Your task to perform on an android device: Open ESPN.com Image 0: 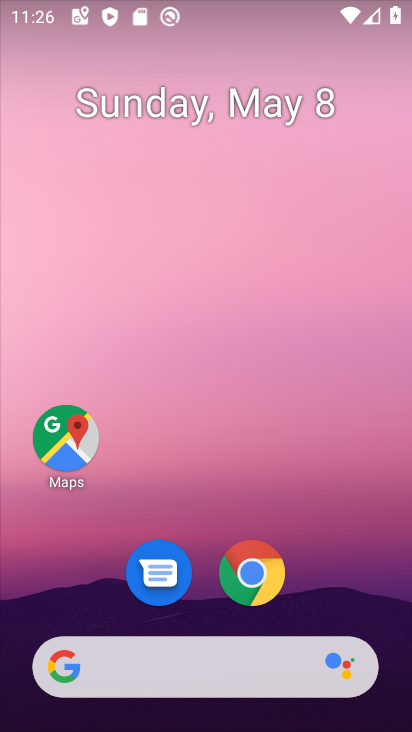
Step 0: drag from (314, 564) to (282, 26)
Your task to perform on an android device: Open ESPN.com Image 1: 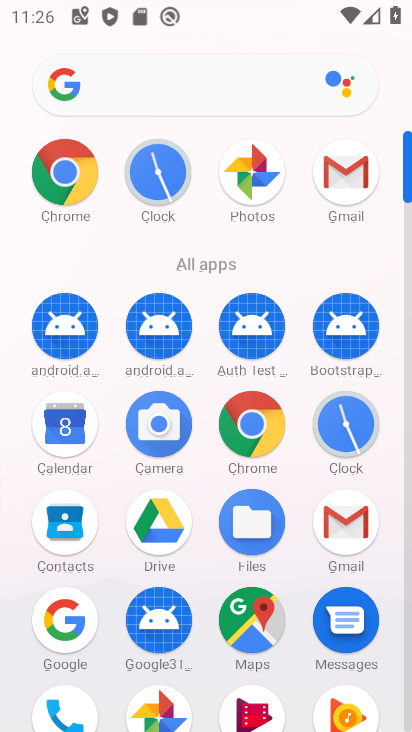
Step 1: click (66, 173)
Your task to perform on an android device: Open ESPN.com Image 2: 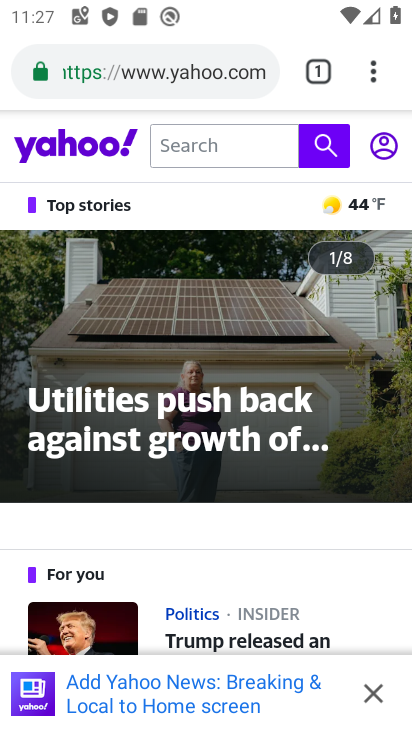
Step 2: click (170, 78)
Your task to perform on an android device: Open ESPN.com Image 3: 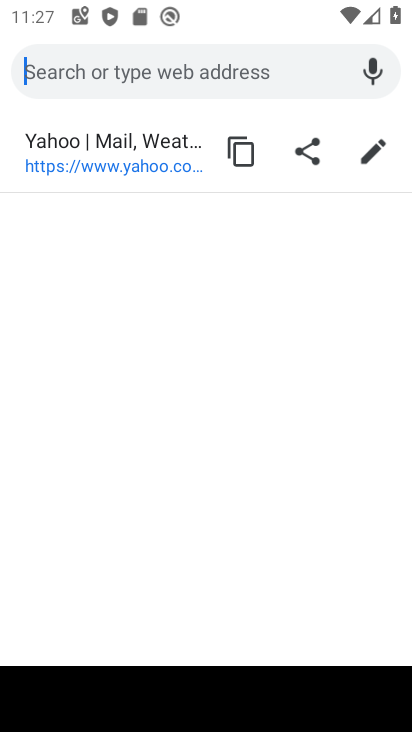
Step 3: type "ESPN.com"
Your task to perform on an android device: Open ESPN.com Image 4: 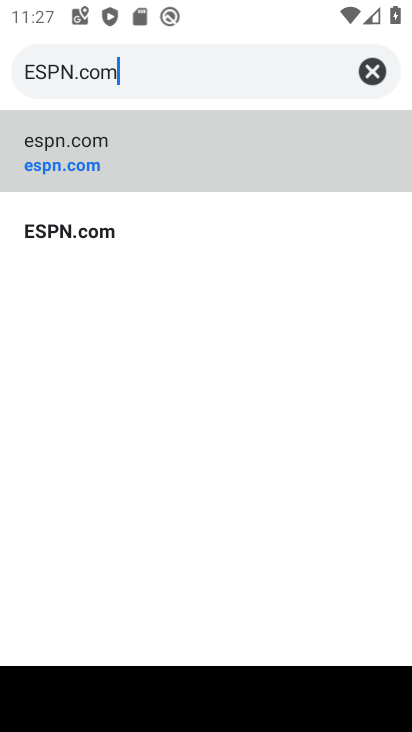
Step 4: type ""
Your task to perform on an android device: Open ESPN.com Image 5: 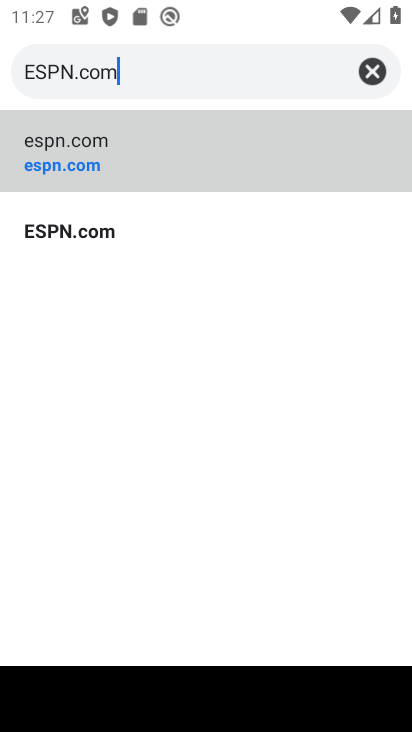
Step 5: click (161, 124)
Your task to perform on an android device: Open ESPN.com Image 6: 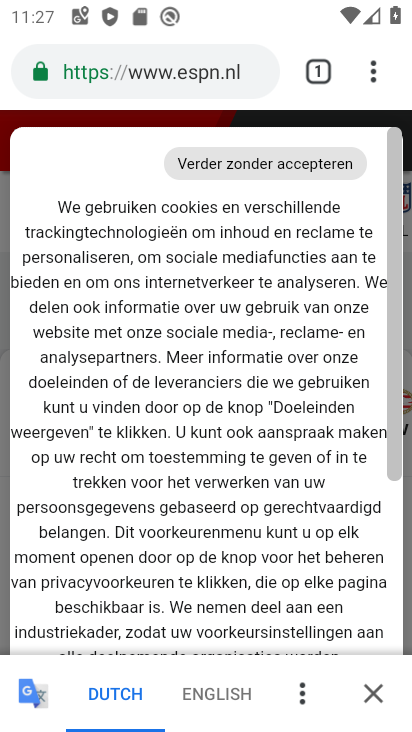
Step 6: drag from (216, 490) to (241, 156)
Your task to perform on an android device: Open ESPN.com Image 7: 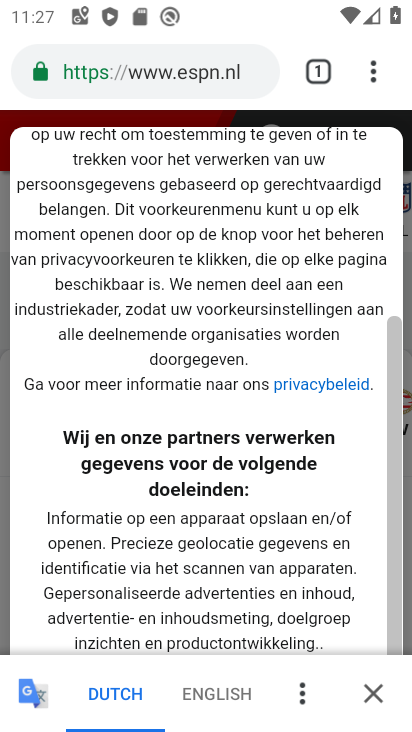
Step 7: drag from (241, 574) to (242, 99)
Your task to perform on an android device: Open ESPN.com Image 8: 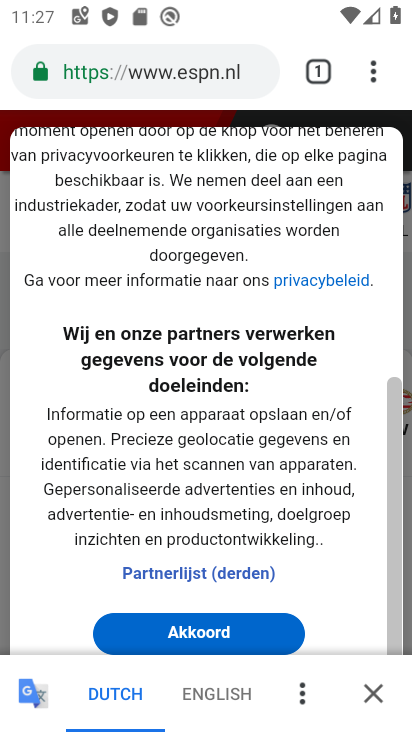
Step 8: drag from (280, 576) to (302, 263)
Your task to perform on an android device: Open ESPN.com Image 9: 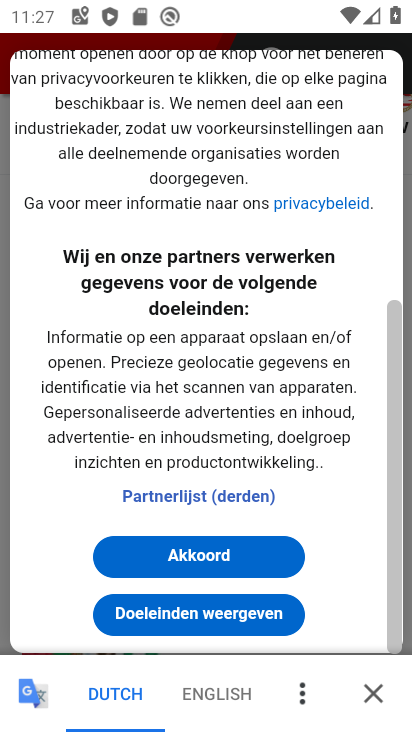
Step 9: click (204, 547)
Your task to perform on an android device: Open ESPN.com Image 10: 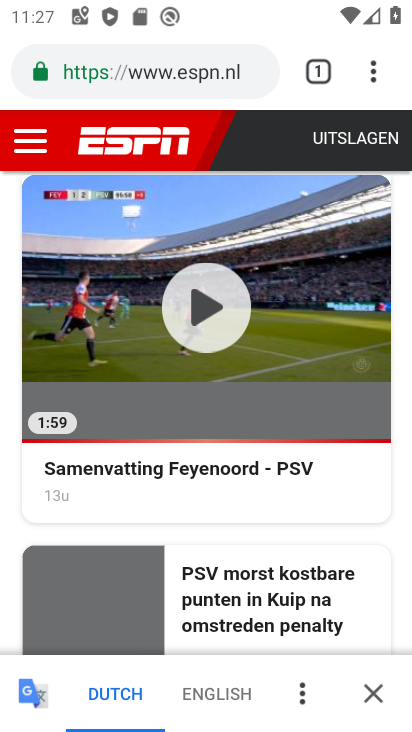
Step 10: task complete